Your task to perform on an android device: turn off wifi Image 0: 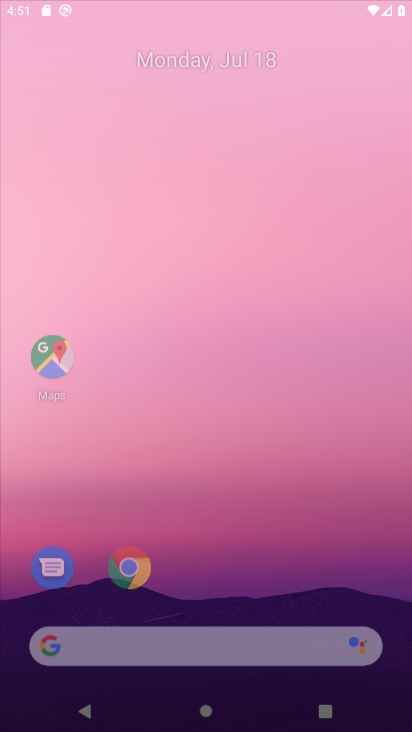
Step 0: click (211, 275)
Your task to perform on an android device: turn off wifi Image 1: 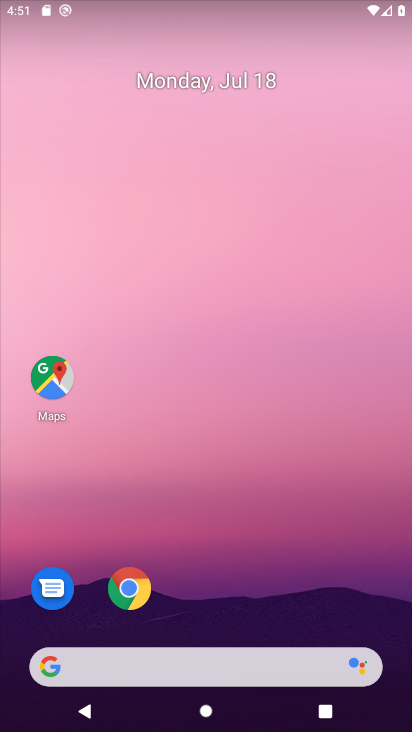
Step 1: drag from (280, 582) to (312, 296)
Your task to perform on an android device: turn off wifi Image 2: 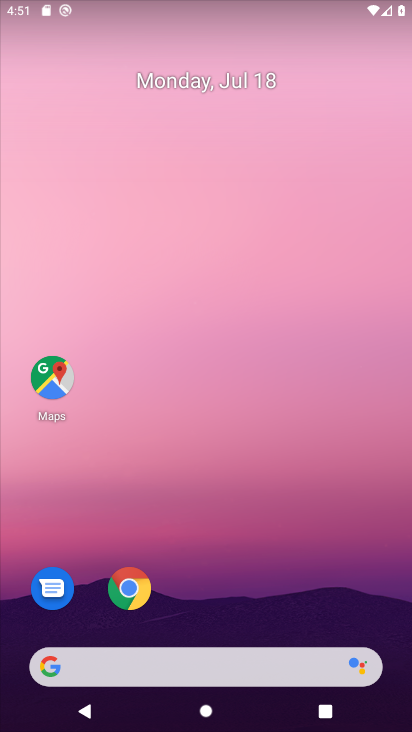
Step 2: drag from (256, 586) to (224, 236)
Your task to perform on an android device: turn off wifi Image 3: 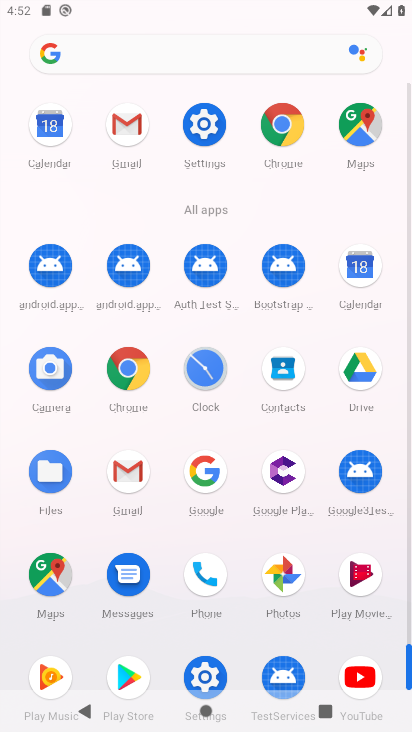
Step 3: click (205, 147)
Your task to perform on an android device: turn off wifi Image 4: 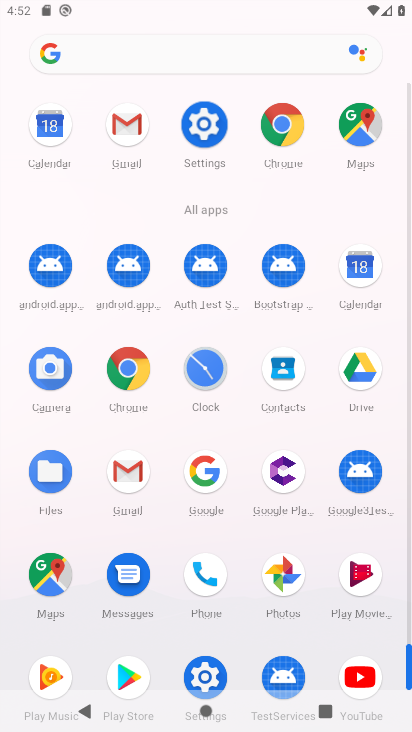
Step 4: click (207, 103)
Your task to perform on an android device: turn off wifi Image 5: 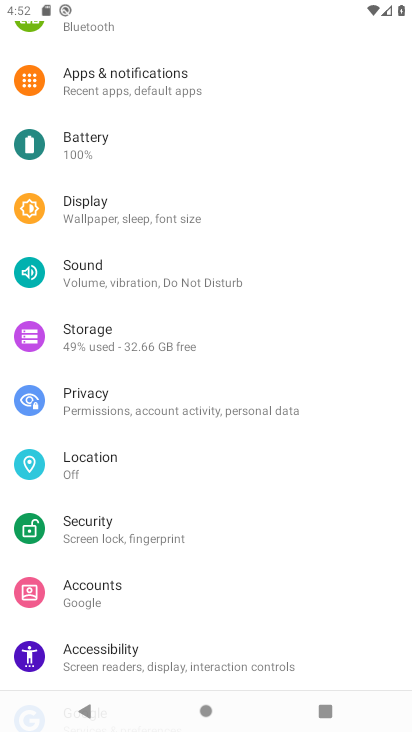
Step 5: drag from (119, 91) to (191, 580)
Your task to perform on an android device: turn off wifi Image 6: 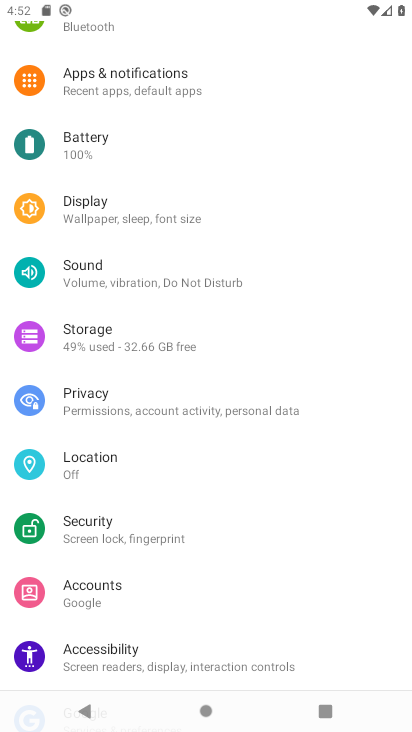
Step 6: drag from (106, 508) to (117, 707)
Your task to perform on an android device: turn off wifi Image 7: 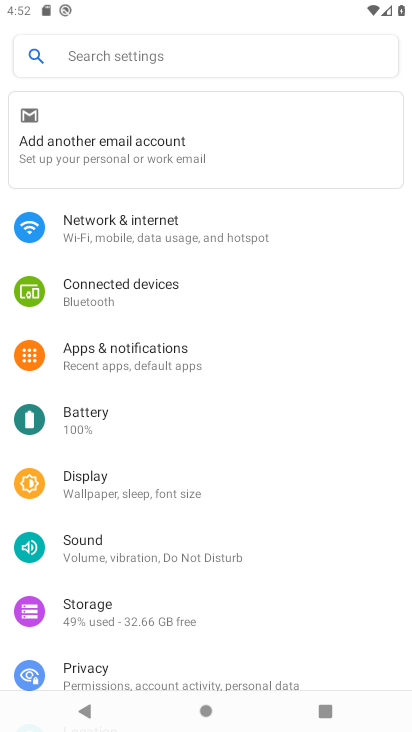
Step 7: click (135, 232)
Your task to perform on an android device: turn off wifi Image 8: 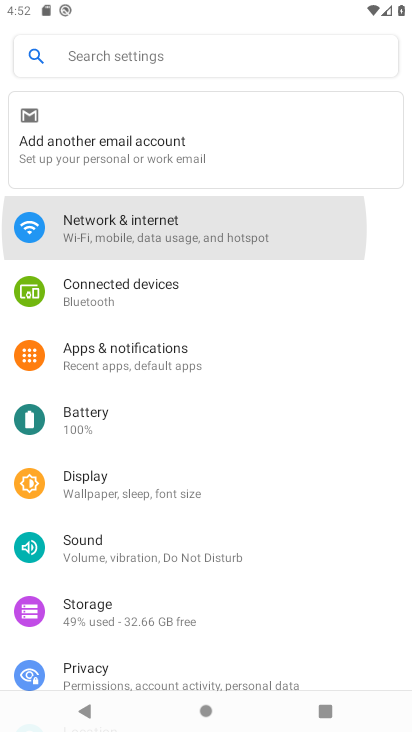
Step 8: click (141, 235)
Your task to perform on an android device: turn off wifi Image 9: 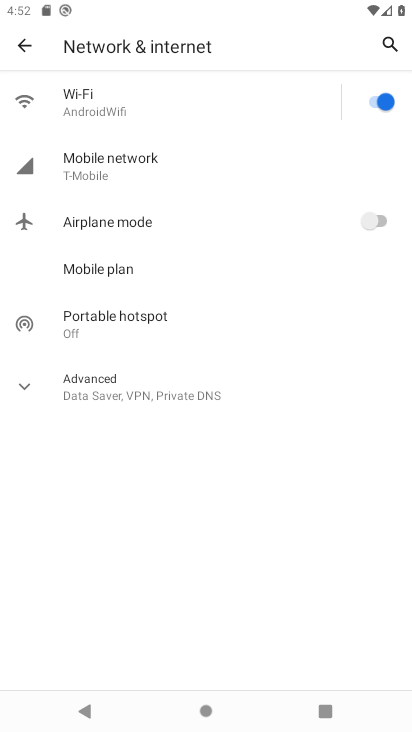
Step 9: task complete